Your task to perform on an android device: Search for bose quietcomfort 35 on target.com, select the first entry, and add it to the cart. Image 0: 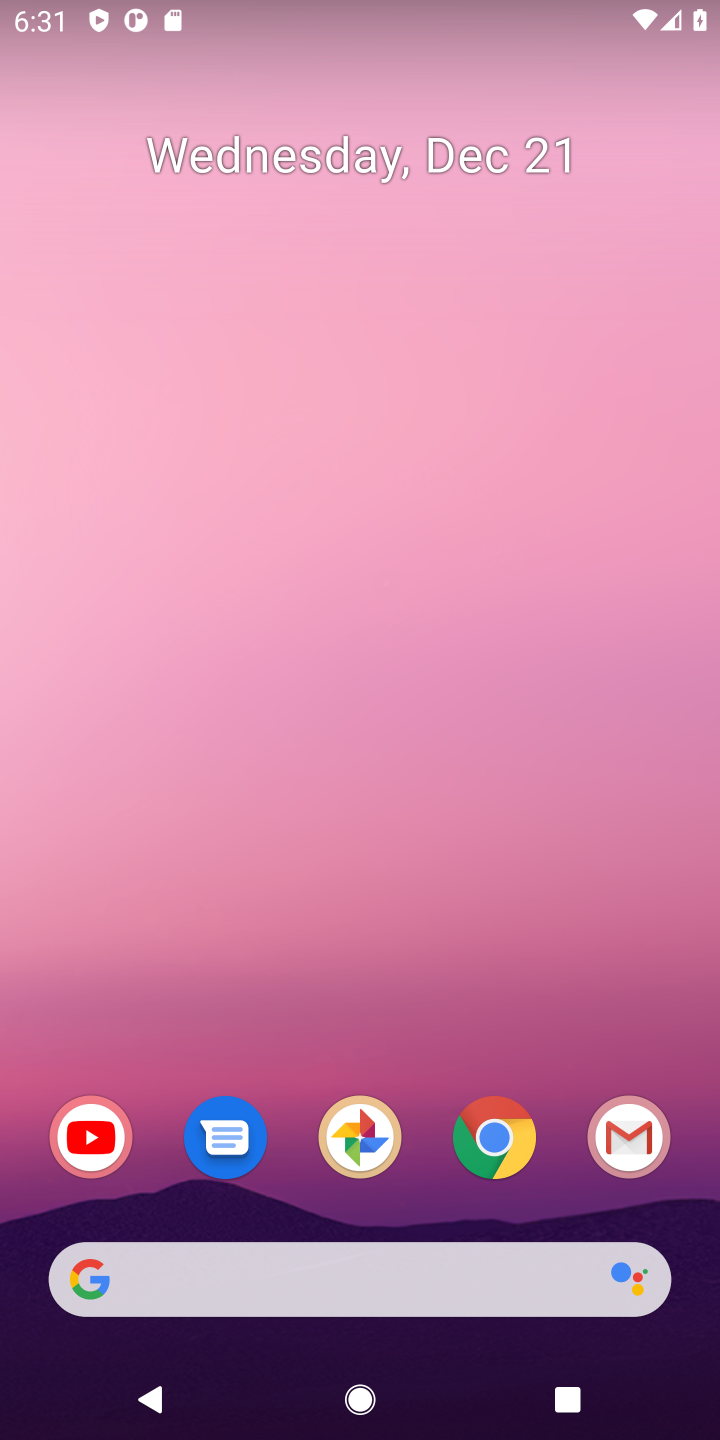
Step 0: click (499, 1118)
Your task to perform on an android device: Search for bose quietcomfort 35 on target.com, select the first entry, and add it to the cart. Image 1: 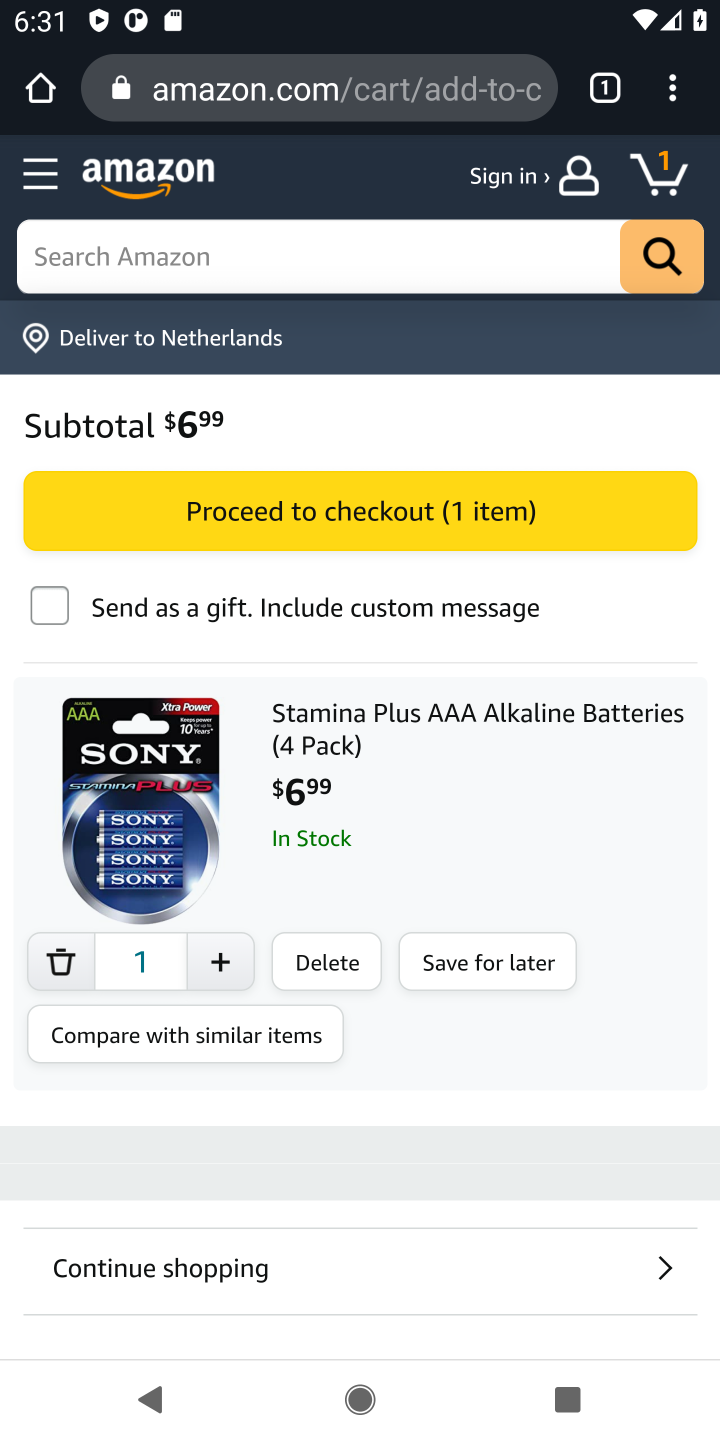
Step 1: click (290, 78)
Your task to perform on an android device: Search for bose quietcomfort 35 on target.com, select the first entry, and add it to the cart. Image 2: 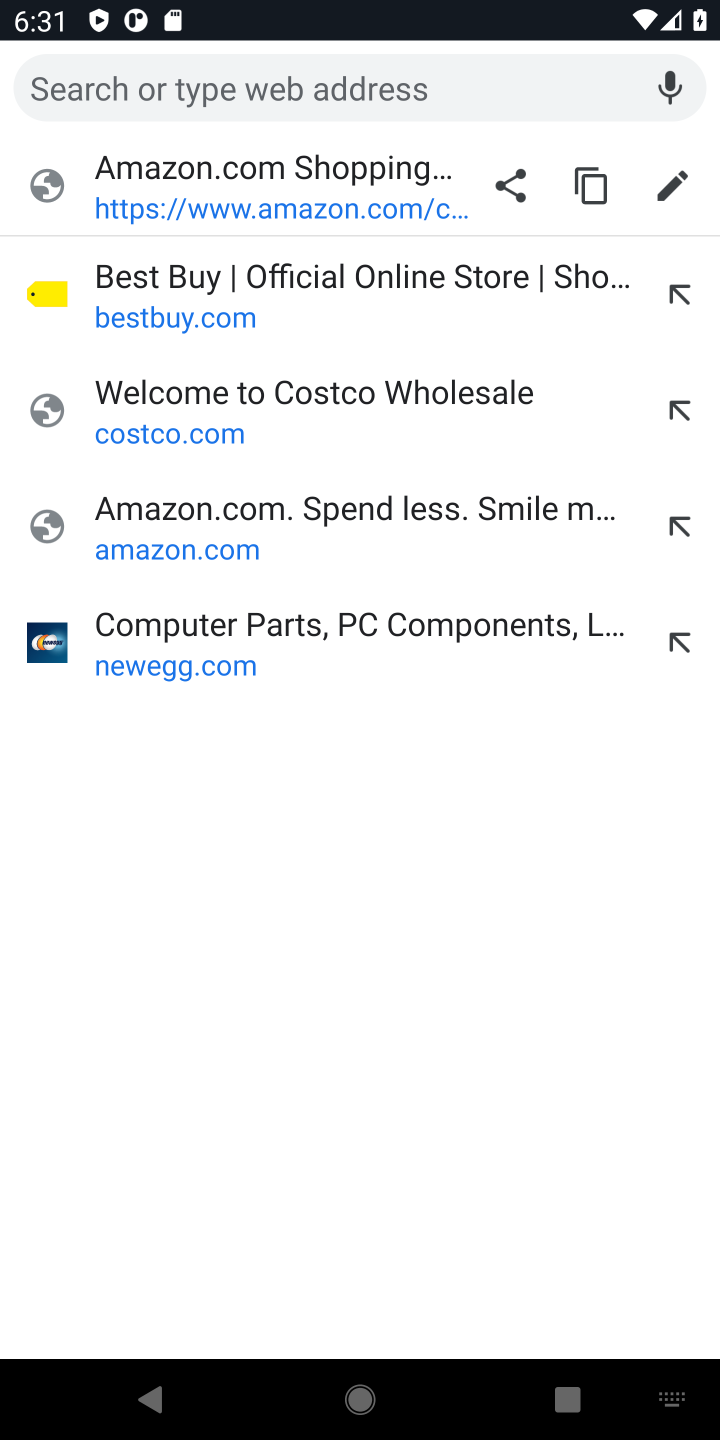
Step 2: type "target.com"
Your task to perform on an android device: Search for bose quietcomfort 35 on target.com, select the first entry, and add it to the cart. Image 3: 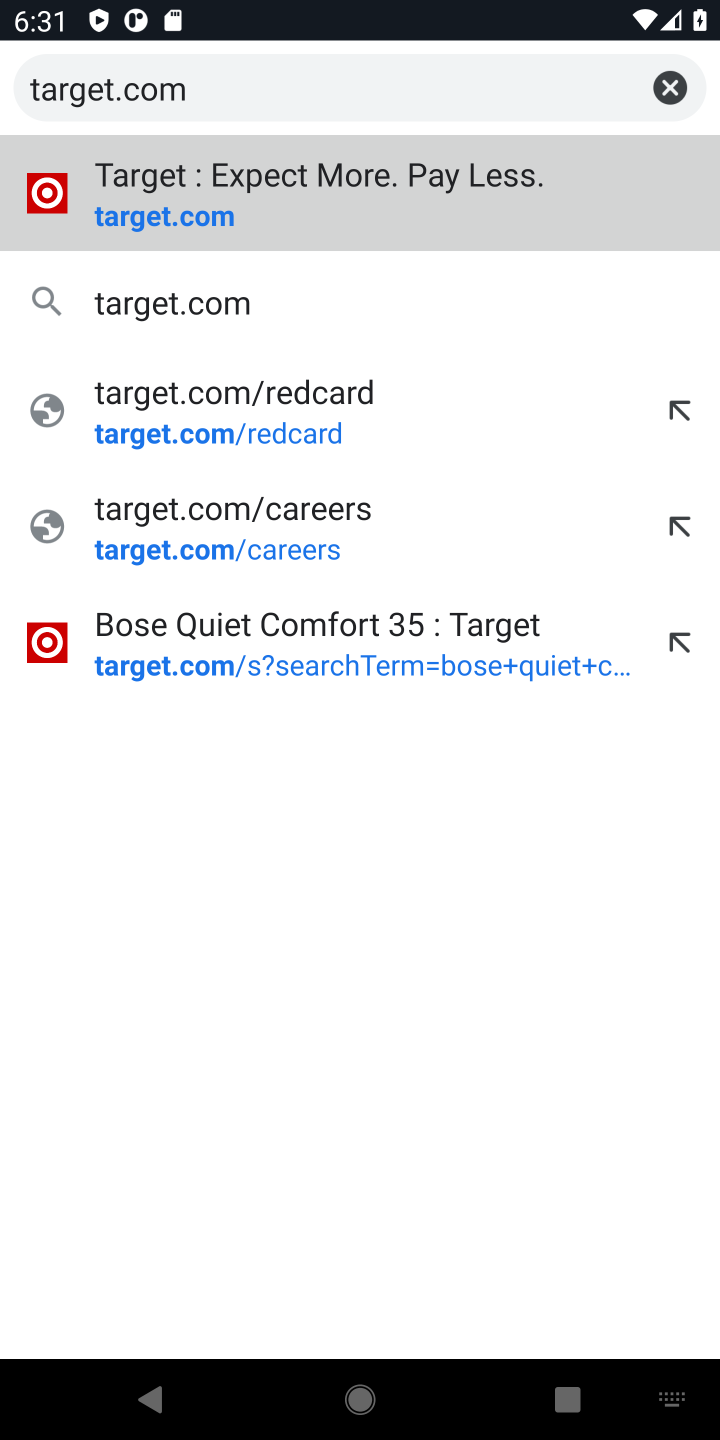
Step 3: click (157, 228)
Your task to perform on an android device: Search for bose quietcomfort 35 on target.com, select the first entry, and add it to the cart. Image 4: 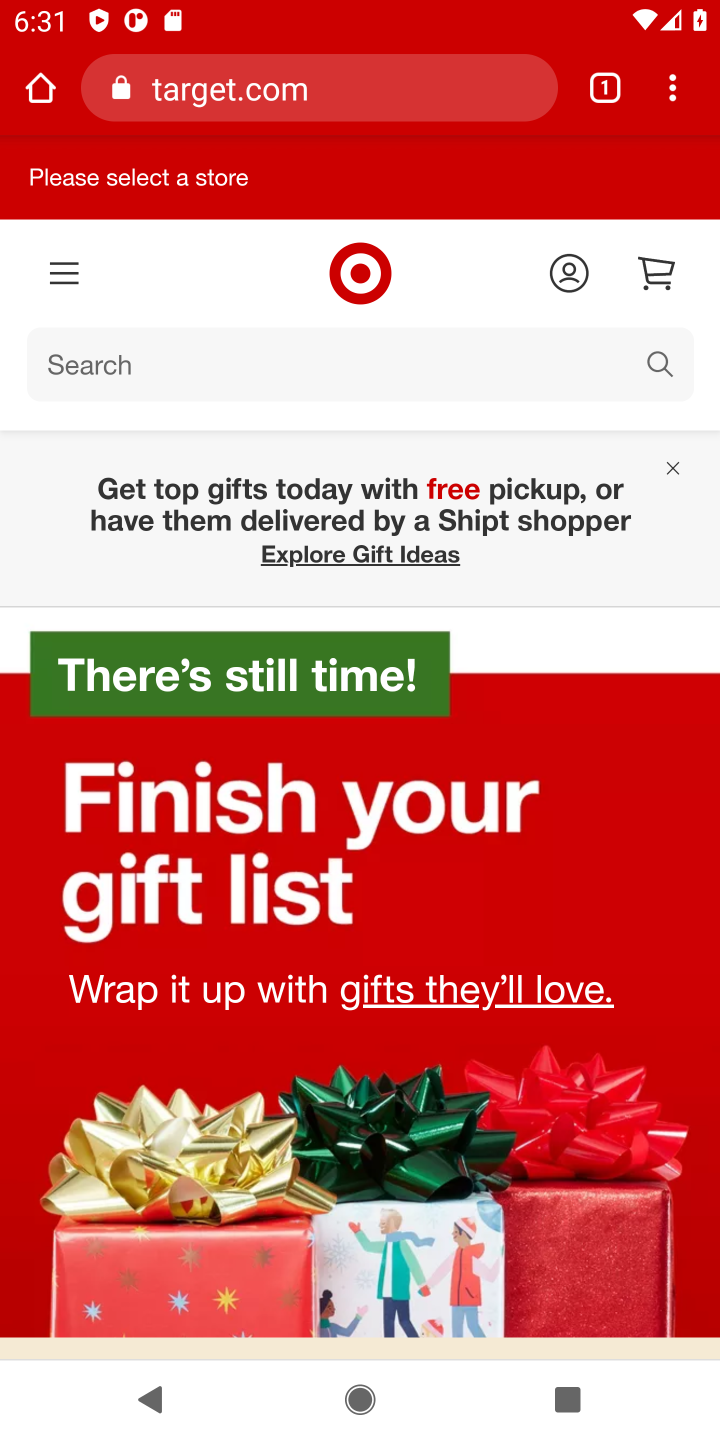
Step 4: click (73, 355)
Your task to perform on an android device: Search for bose quietcomfort 35 on target.com, select the first entry, and add it to the cart. Image 5: 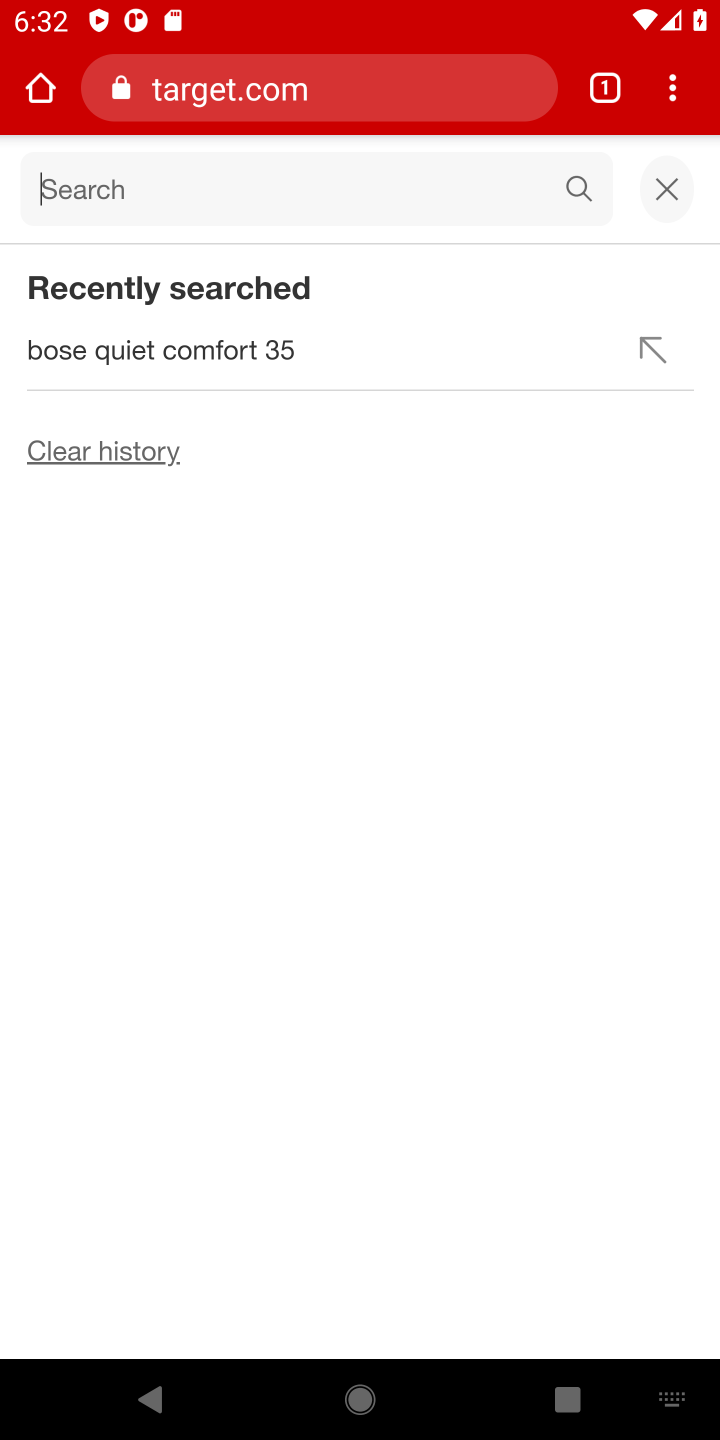
Step 5: click (80, 353)
Your task to perform on an android device: Search for bose quietcomfort 35 on target.com, select the first entry, and add it to the cart. Image 6: 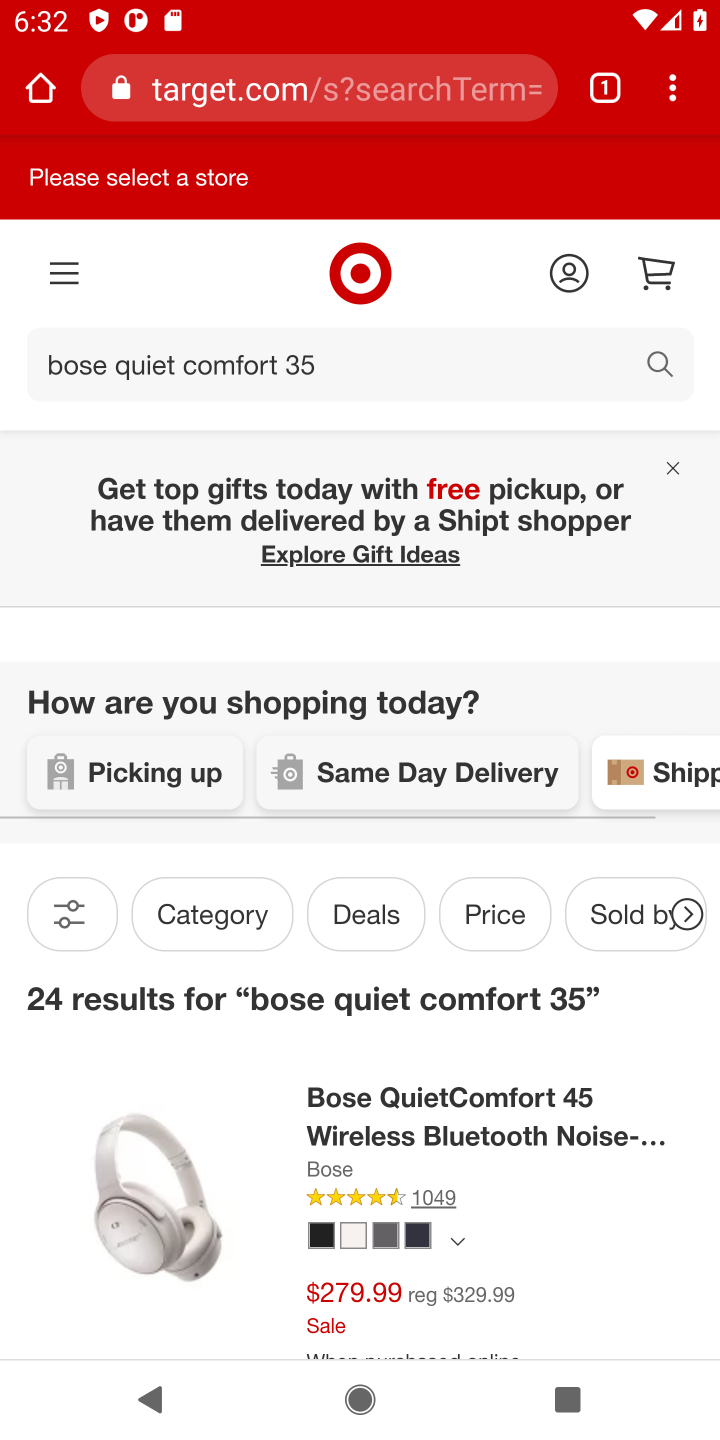
Step 6: task complete